Your task to perform on an android device: turn off airplane mode Image 0: 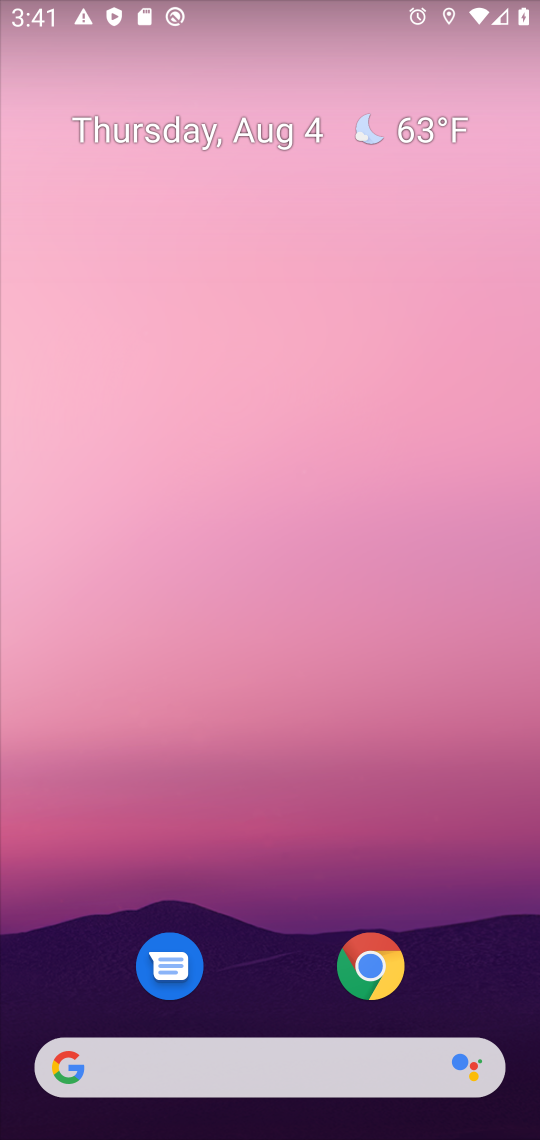
Step 0: press home button
Your task to perform on an android device: turn off airplane mode Image 1: 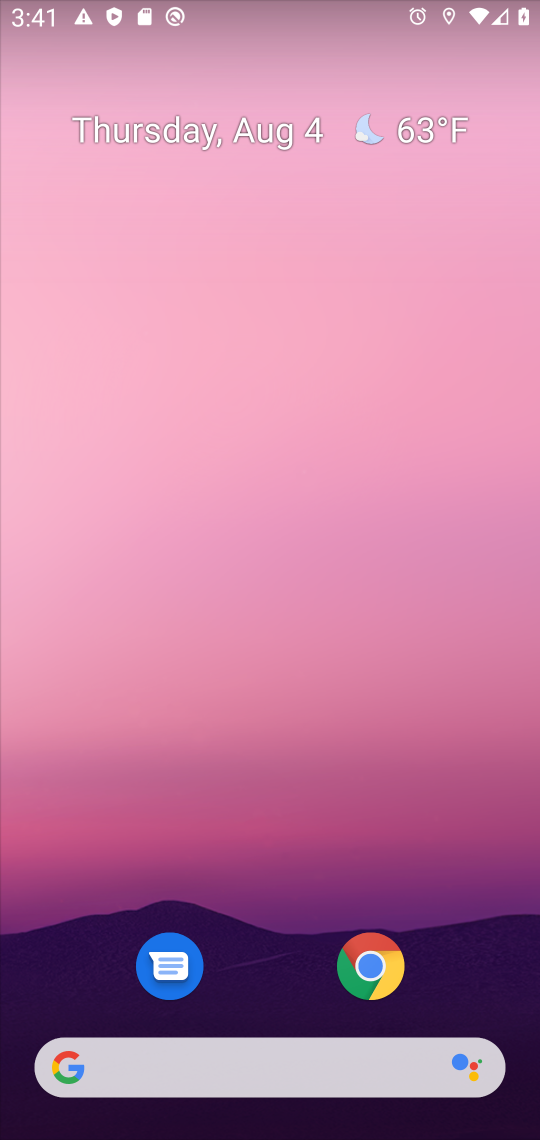
Step 1: task complete